Your task to perform on an android device: add a contact in the contacts app Image 0: 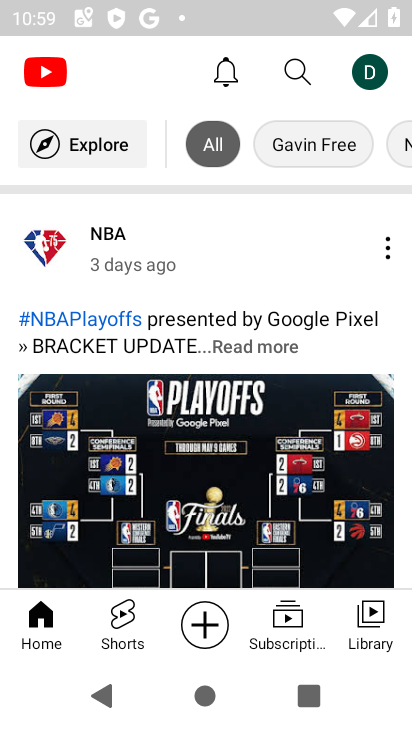
Step 0: press home button
Your task to perform on an android device: add a contact in the contacts app Image 1: 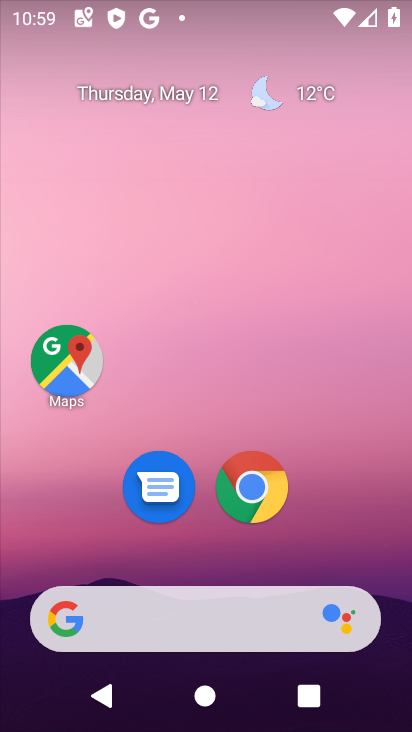
Step 1: drag from (385, 555) to (291, 42)
Your task to perform on an android device: add a contact in the contacts app Image 2: 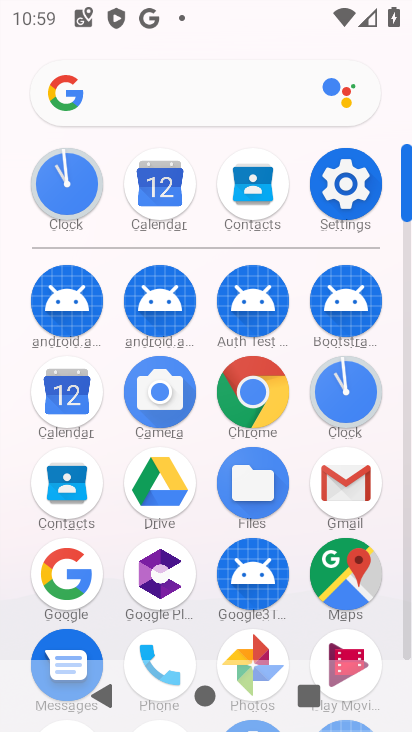
Step 2: click (243, 200)
Your task to perform on an android device: add a contact in the contacts app Image 3: 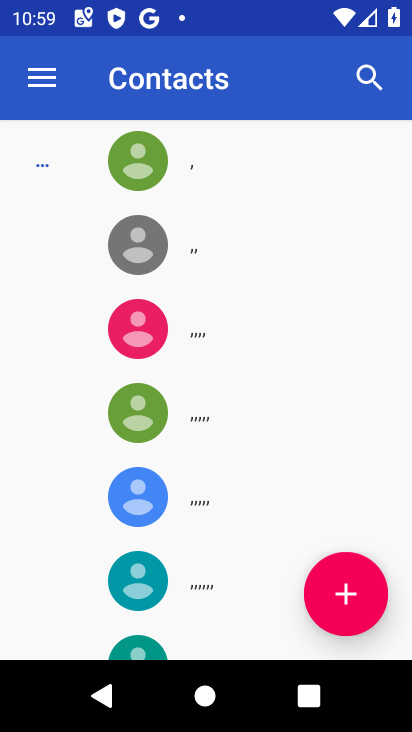
Step 3: click (332, 601)
Your task to perform on an android device: add a contact in the contacts app Image 4: 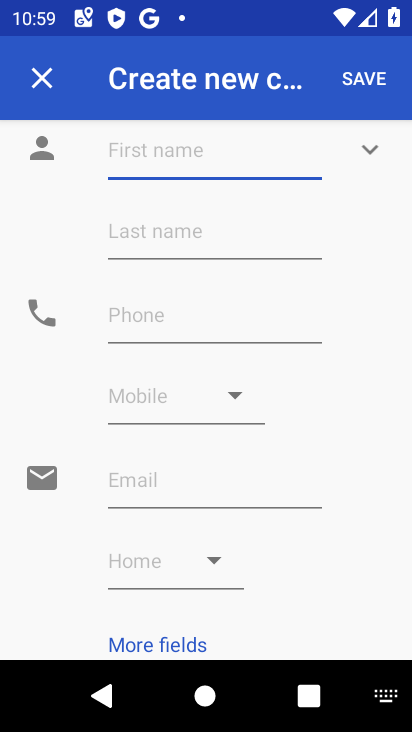
Step 4: click (143, 150)
Your task to perform on an android device: add a contact in the contacts app Image 5: 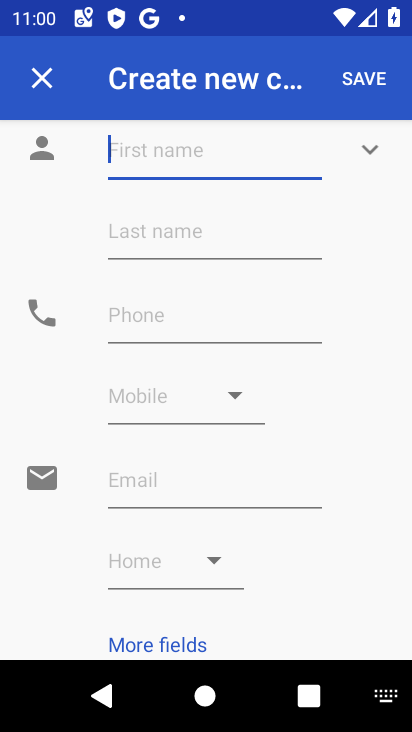
Step 5: type "renu"
Your task to perform on an android device: add a contact in the contacts app Image 6: 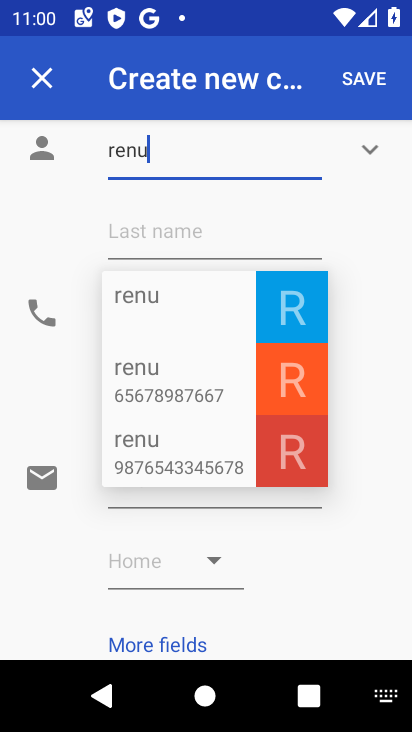
Step 6: click (367, 326)
Your task to perform on an android device: add a contact in the contacts app Image 7: 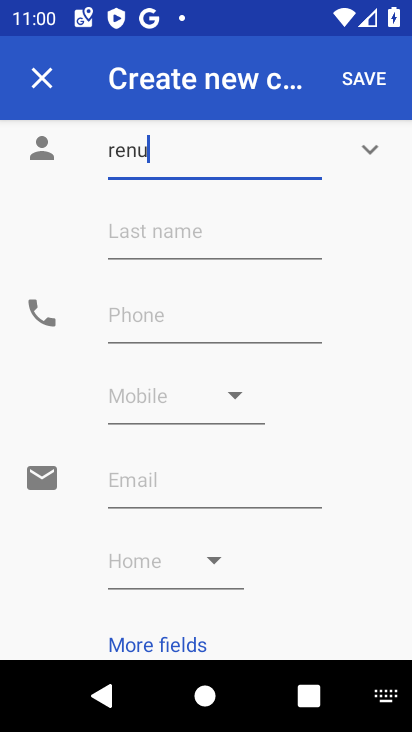
Step 7: click (141, 328)
Your task to perform on an android device: add a contact in the contacts app Image 8: 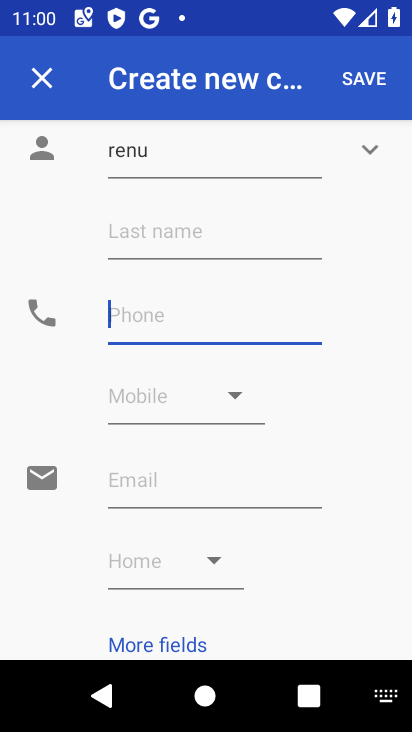
Step 8: type "6776554444"
Your task to perform on an android device: add a contact in the contacts app Image 9: 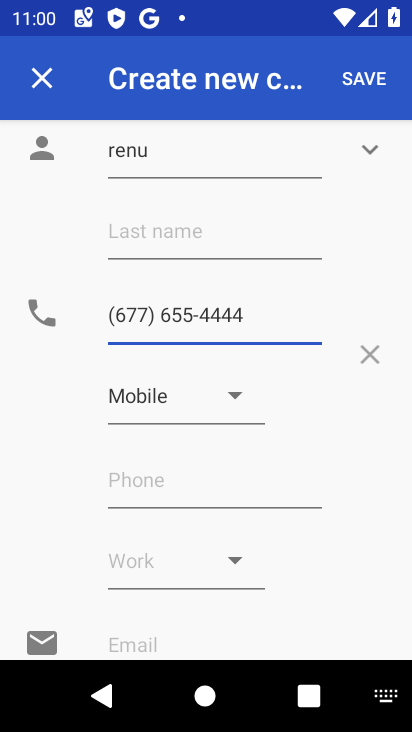
Step 9: click (352, 66)
Your task to perform on an android device: add a contact in the contacts app Image 10: 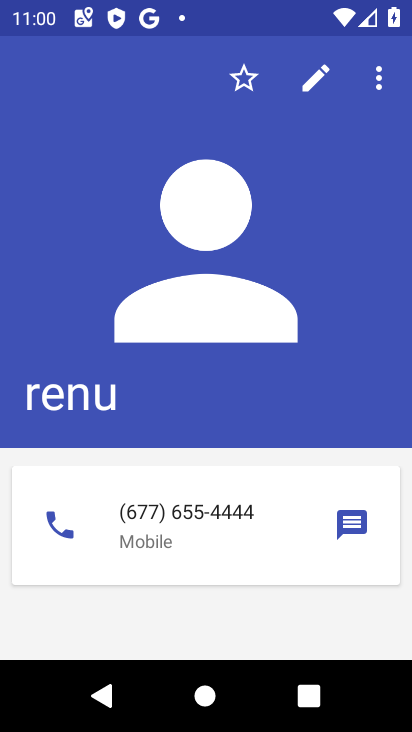
Step 10: task complete